Your task to perform on an android device: check google app version Image 0: 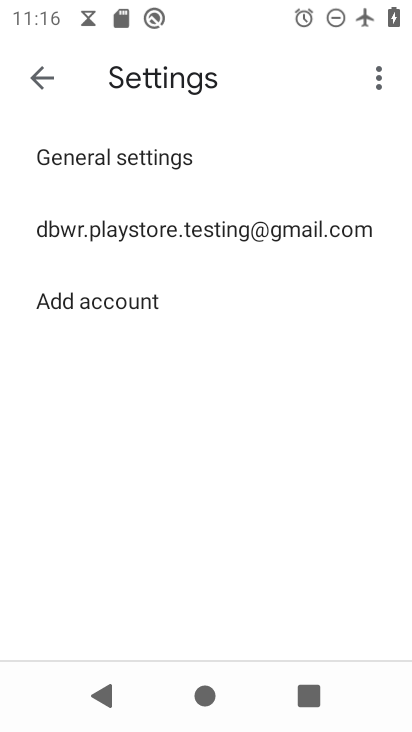
Step 0: press home button
Your task to perform on an android device: check google app version Image 1: 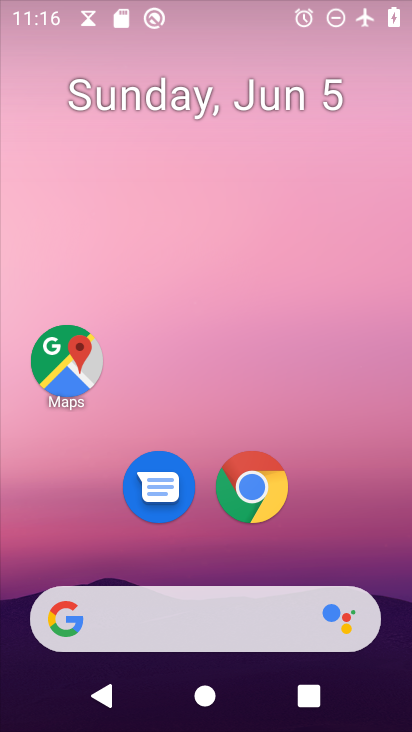
Step 1: drag from (211, 572) to (182, 261)
Your task to perform on an android device: check google app version Image 2: 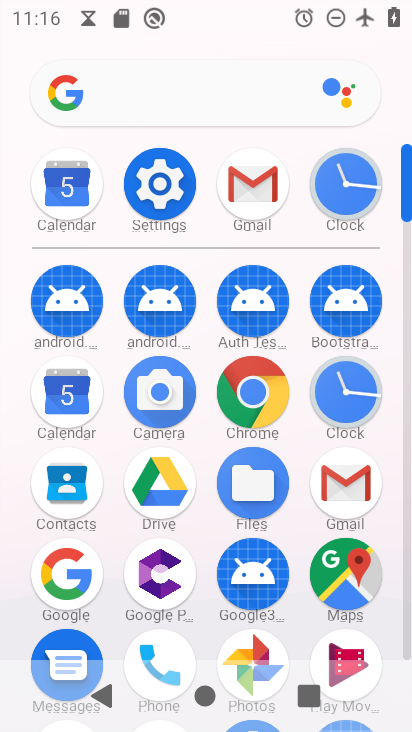
Step 2: click (70, 575)
Your task to perform on an android device: check google app version Image 3: 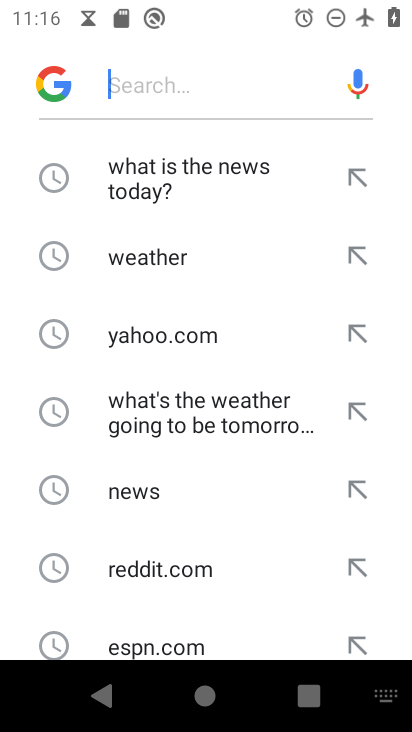
Step 3: click (48, 78)
Your task to perform on an android device: check google app version Image 4: 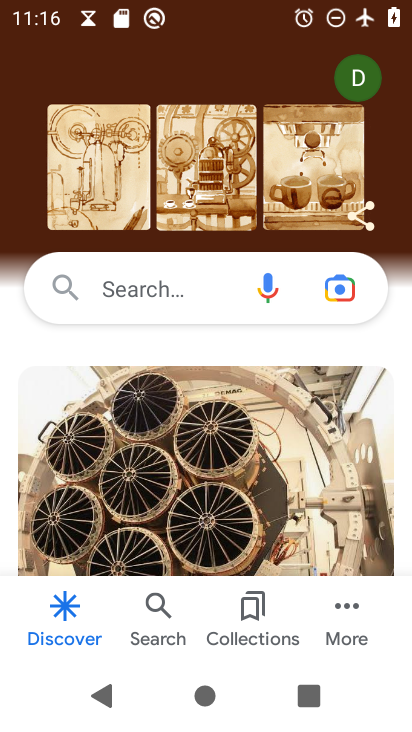
Step 4: click (333, 600)
Your task to perform on an android device: check google app version Image 5: 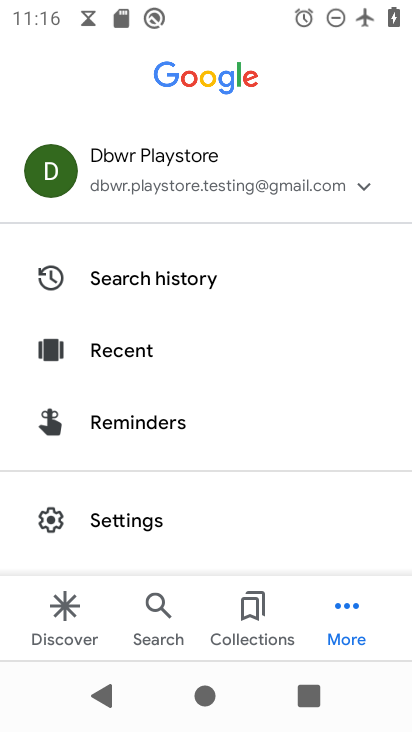
Step 5: click (92, 515)
Your task to perform on an android device: check google app version Image 6: 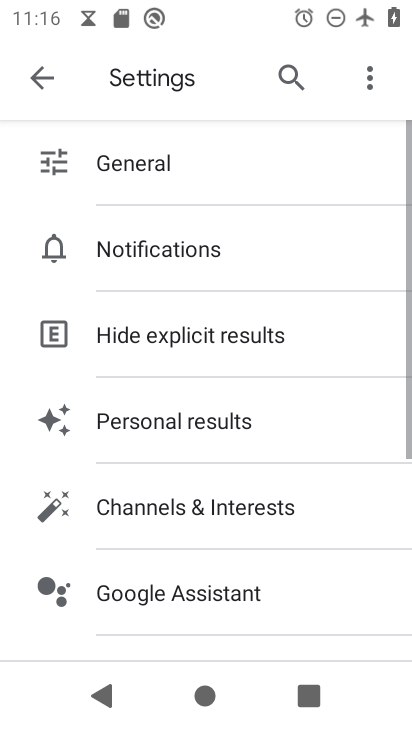
Step 6: drag from (124, 595) to (148, 283)
Your task to perform on an android device: check google app version Image 7: 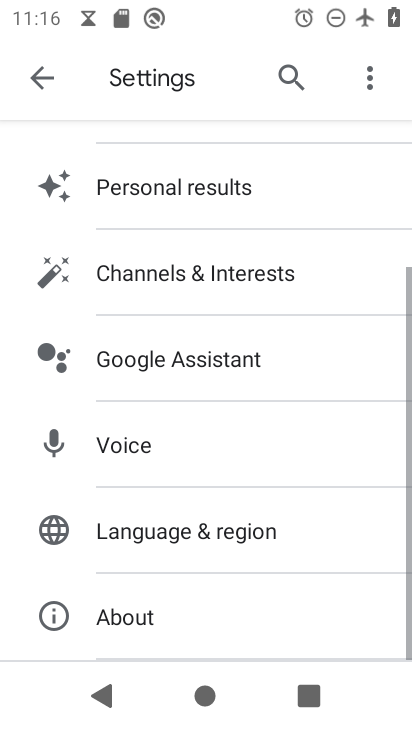
Step 7: click (137, 602)
Your task to perform on an android device: check google app version Image 8: 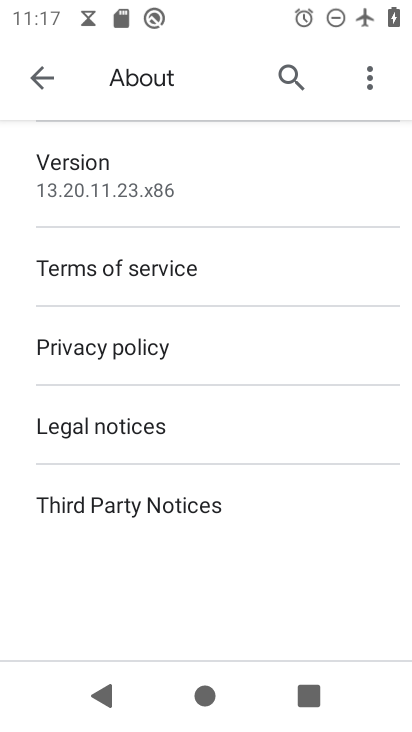
Step 8: task complete